Your task to perform on an android device: Go to location settings Image 0: 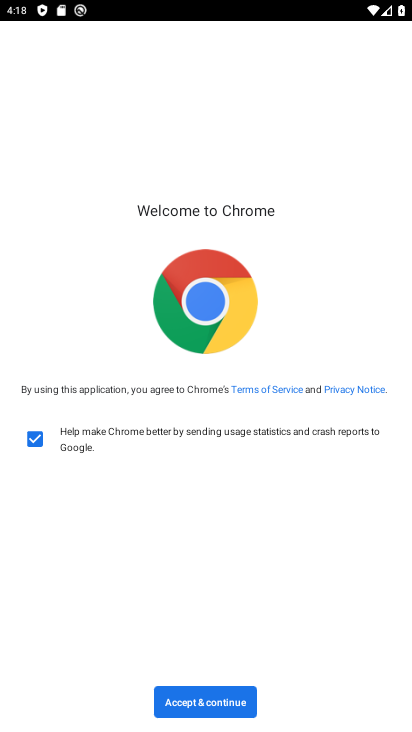
Step 0: press home button
Your task to perform on an android device: Go to location settings Image 1: 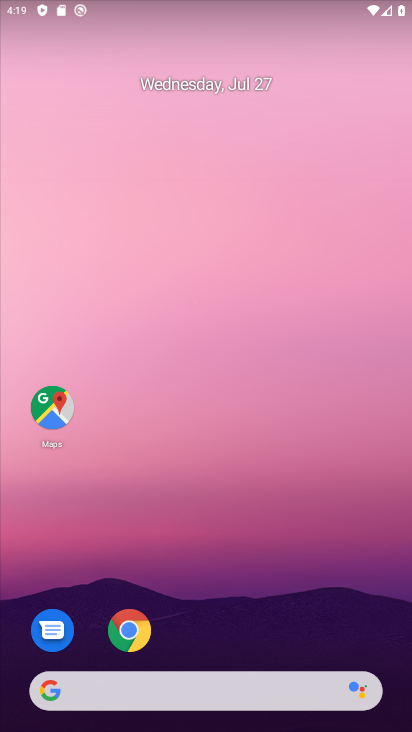
Step 1: drag from (199, 684) to (269, 208)
Your task to perform on an android device: Go to location settings Image 2: 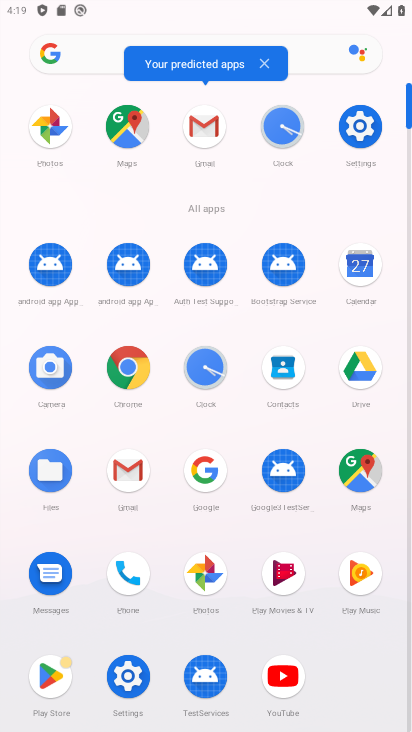
Step 2: click (359, 125)
Your task to perform on an android device: Go to location settings Image 3: 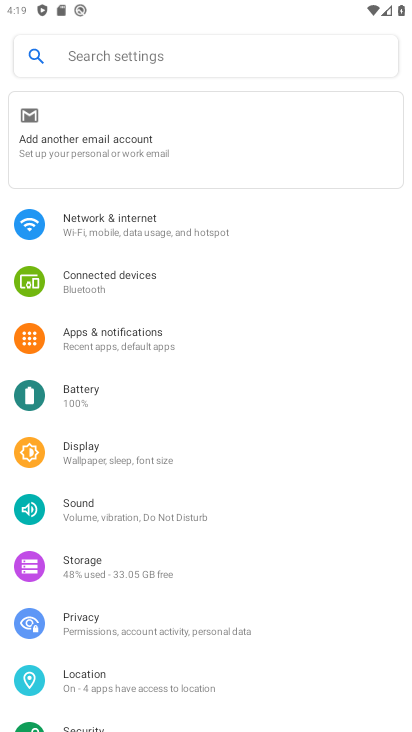
Step 3: click (95, 676)
Your task to perform on an android device: Go to location settings Image 4: 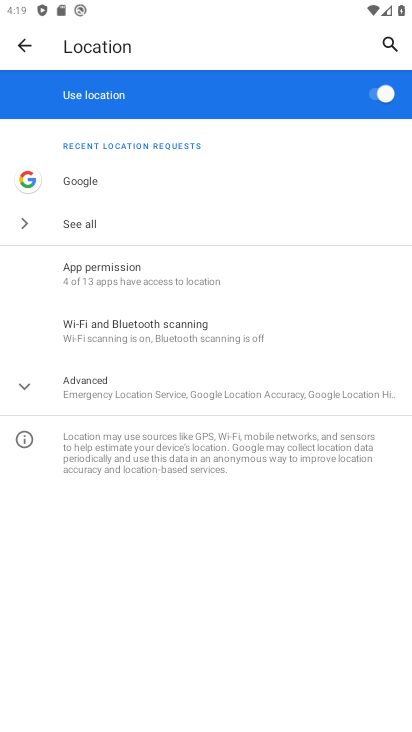
Step 4: task complete